Your task to perform on an android device: turn off notifications in google photos Image 0: 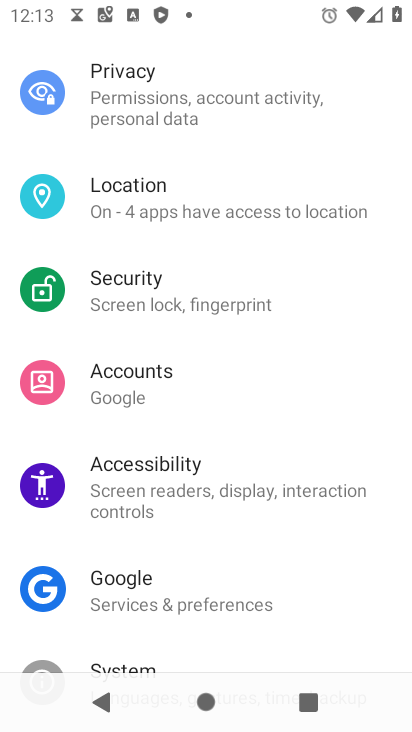
Step 0: drag from (269, 190) to (337, 569)
Your task to perform on an android device: turn off notifications in google photos Image 1: 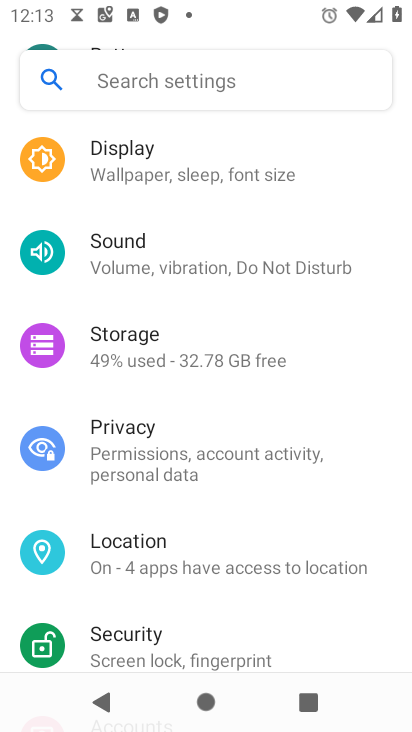
Step 1: drag from (203, 226) to (293, 588)
Your task to perform on an android device: turn off notifications in google photos Image 2: 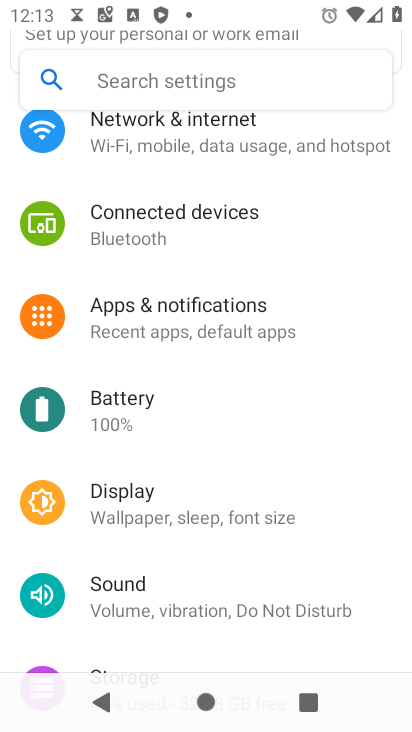
Step 2: click (252, 331)
Your task to perform on an android device: turn off notifications in google photos Image 3: 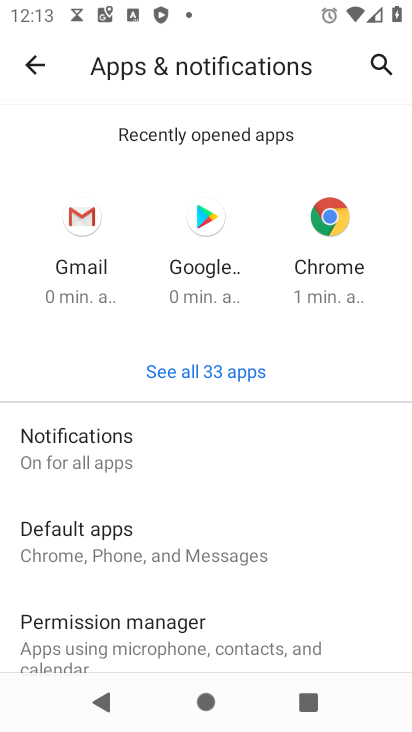
Step 3: click (229, 375)
Your task to perform on an android device: turn off notifications in google photos Image 4: 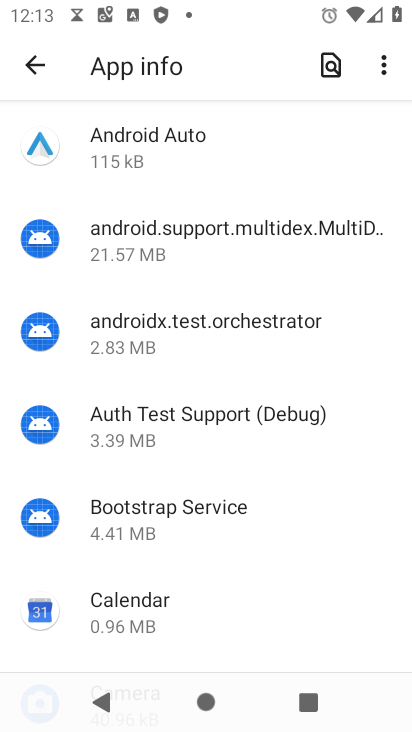
Step 4: drag from (240, 457) to (200, 34)
Your task to perform on an android device: turn off notifications in google photos Image 5: 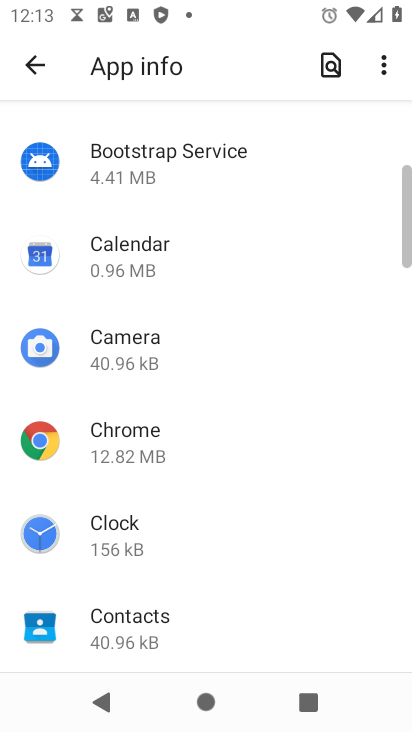
Step 5: drag from (124, 505) to (95, 158)
Your task to perform on an android device: turn off notifications in google photos Image 6: 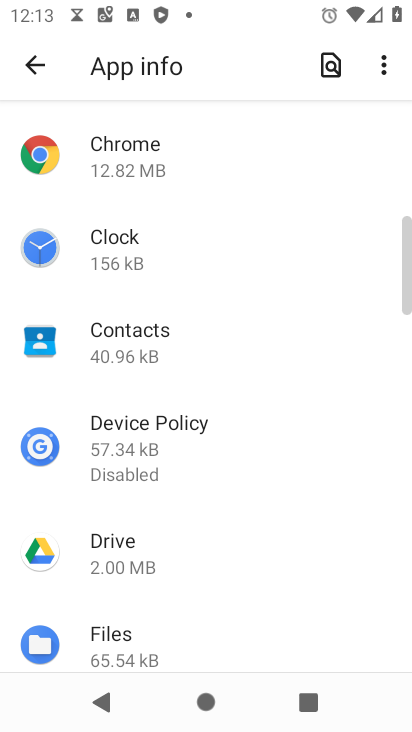
Step 6: drag from (211, 514) to (189, 149)
Your task to perform on an android device: turn off notifications in google photos Image 7: 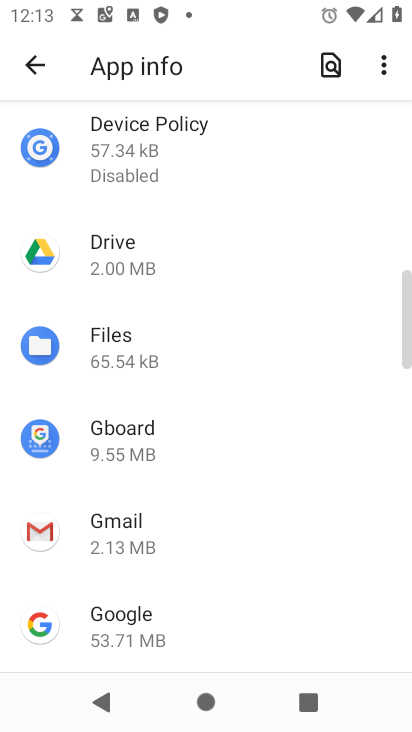
Step 7: drag from (187, 526) to (183, 124)
Your task to perform on an android device: turn off notifications in google photos Image 8: 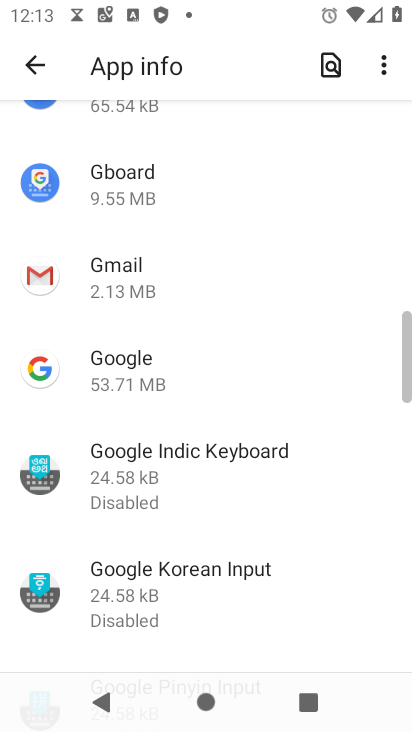
Step 8: drag from (185, 552) to (141, 128)
Your task to perform on an android device: turn off notifications in google photos Image 9: 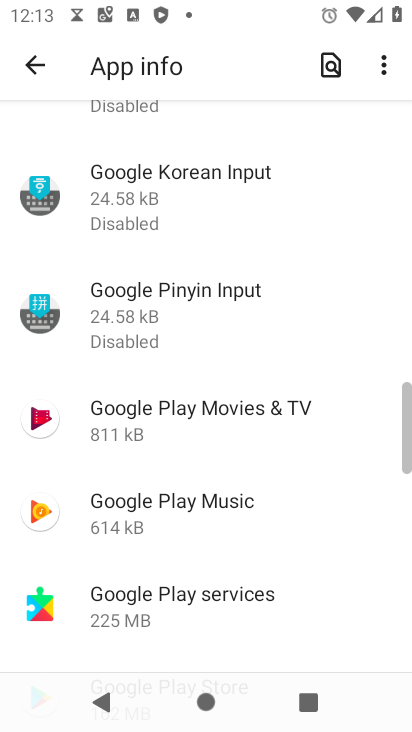
Step 9: drag from (206, 555) to (183, 127)
Your task to perform on an android device: turn off notifications in google photos Image 10: 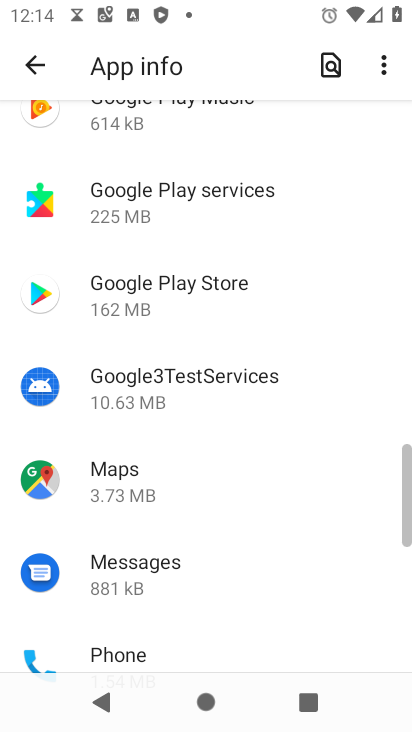
Step 10: drag from (211, 527) to (170, 157)
Your task to perform on an android device: turn off notifications in google photos Image 11: 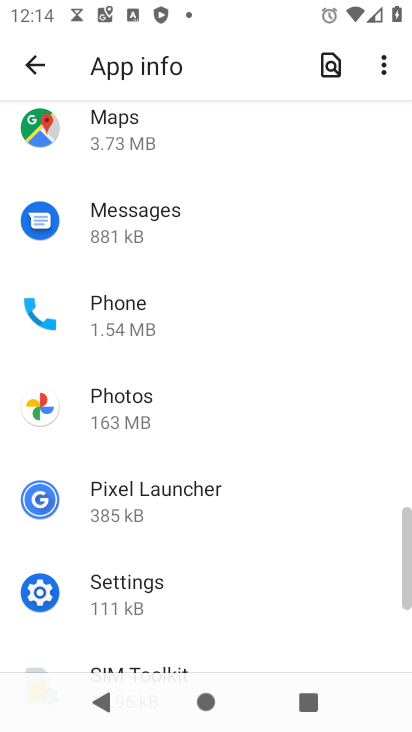
Step 11: click (123, 403)
Your task to perform on an android device: turn off notifications in google photos Image 12: 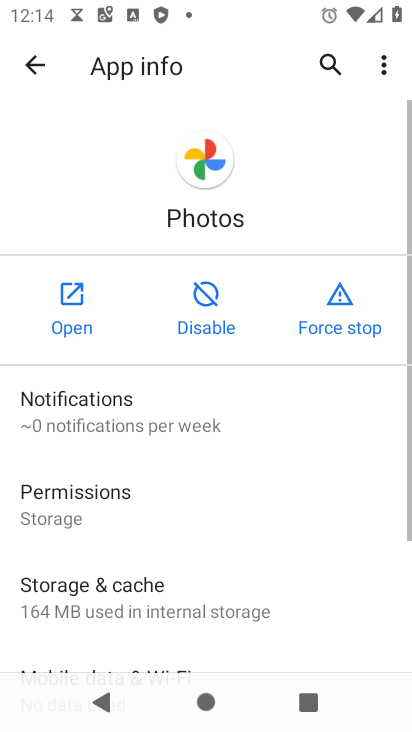
Step 12: click (129, 428)
Your task to perform on an android device: turn off notifications in google photos Image 13: 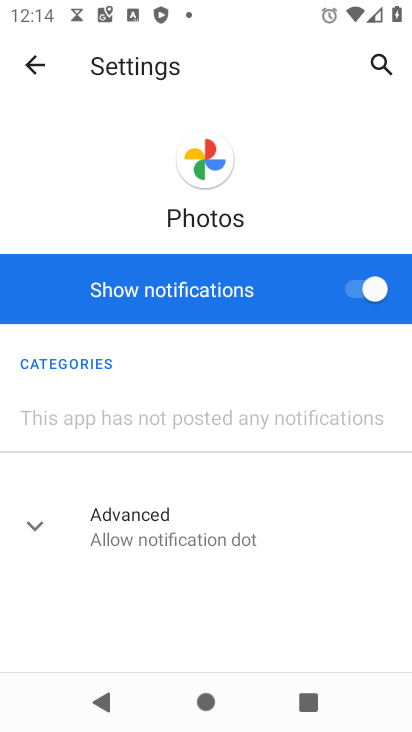
Step 13: click (351, 293)
Your task to perform on an android device: turn off notifications in google photos Image 14: 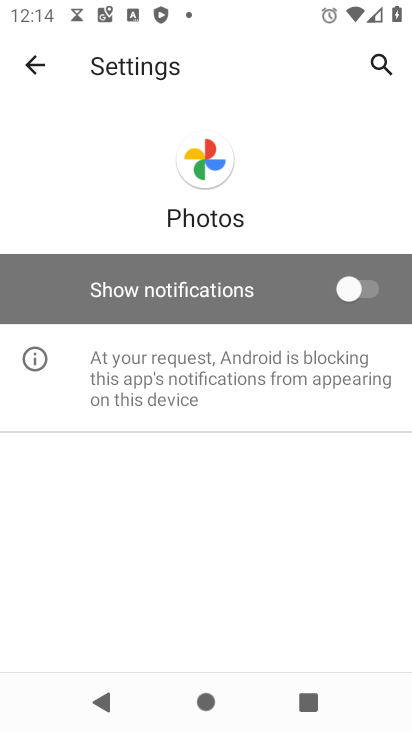
Step 14: task complete